Your task to perform on an android device: Search for the best lawnmowers on Lowes.com Image 0: 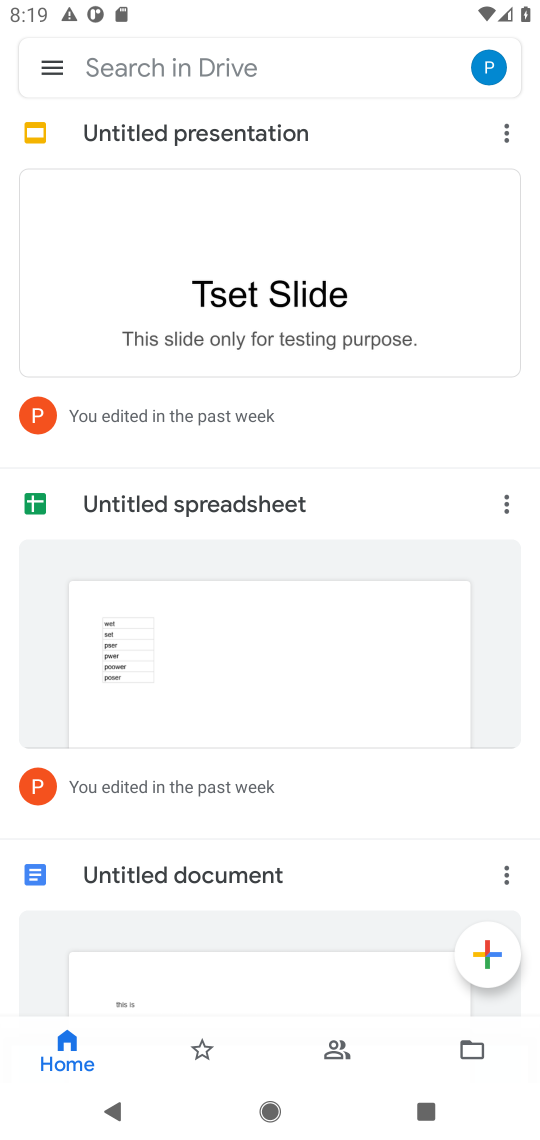
Step 0: task complete